Your task to perform on an android device: toggle javascript in the chrome app Image 0: 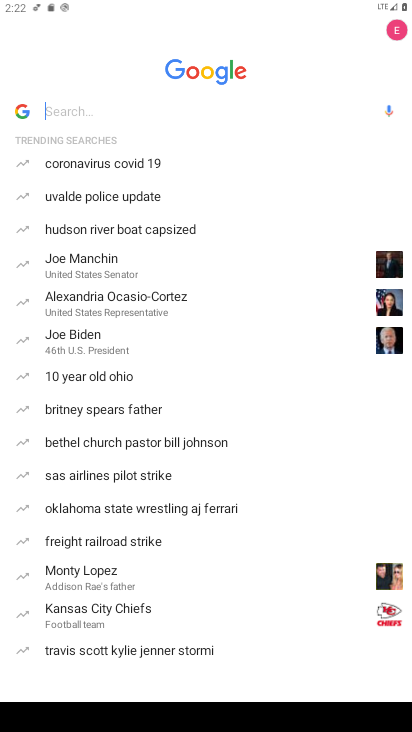
Step 0: press home button
Your task to perform on an android device: toggle javascript in the chrome app Image 1: 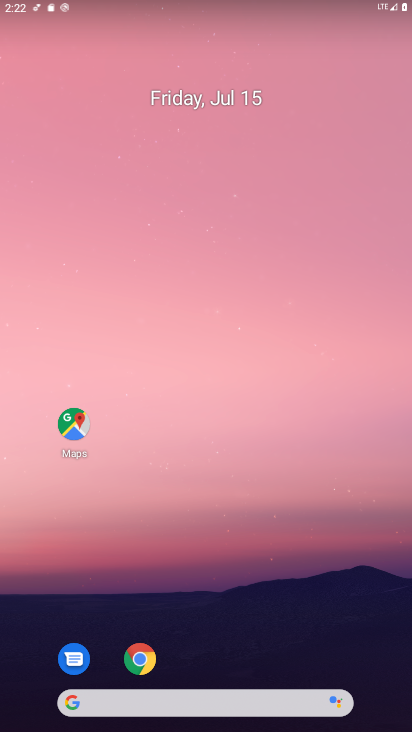
Step 1: drag from (201, 641) to (210, 120)
Your task to perform on an android device: toggle javascript in the chrome app Image 2: 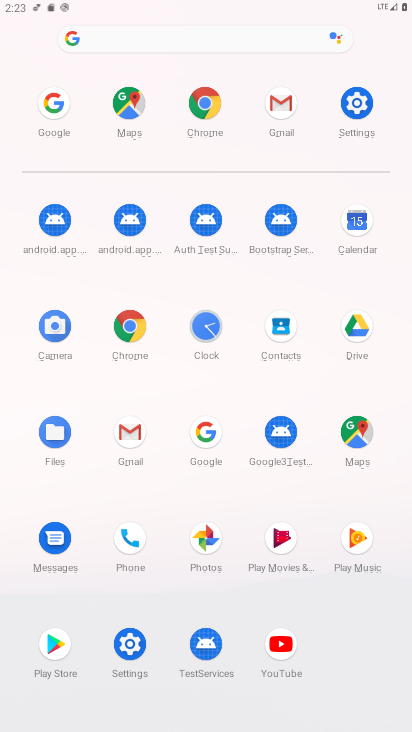
Step 2: click (210, 102)
Your task to perform on an android device: toggle javascript in the chrome app Image 3: 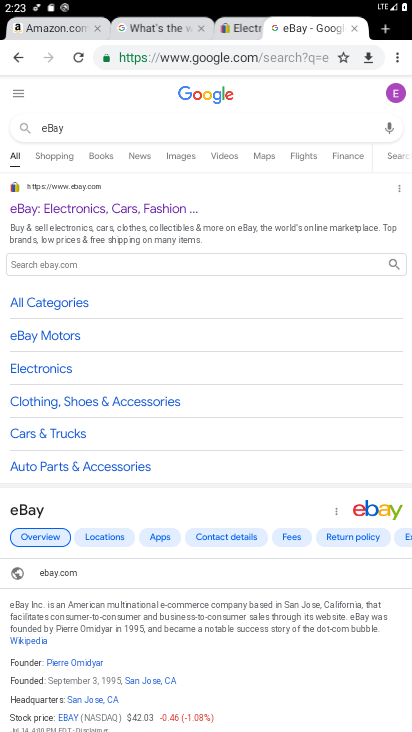
Step 3: click (399, 63)
Your task to perform on an android device: toggle javascript in the chrome app Image 4: 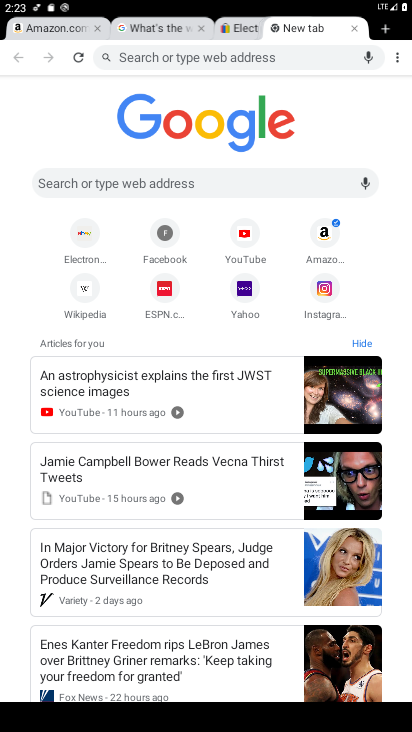
Step 4: click (399, 63)
Your task to perform on an android device: toggle javascript in the chrome app Image 5: 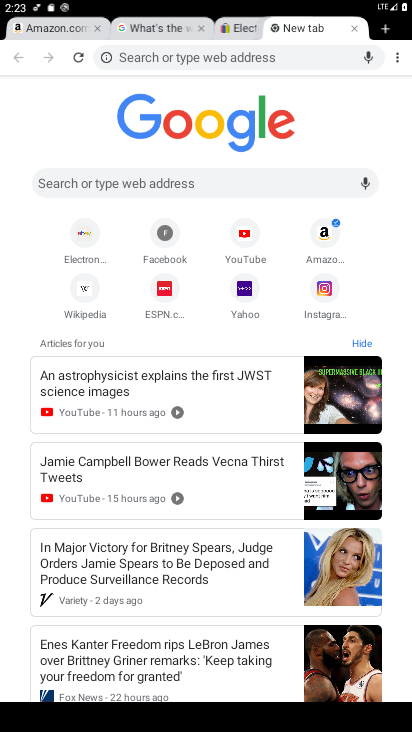
Step 5: click (391, 58)
Your task to perform on an android device: toggle javascript in the chrome app Image 6: 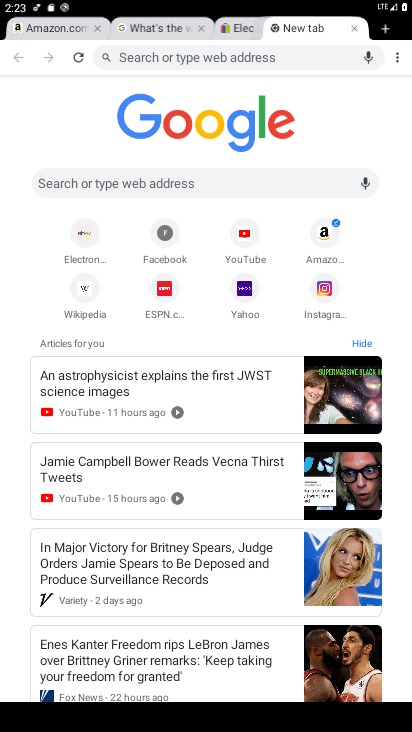
Step 6: click (391, 58)
Your task to perform on an android device: toggle javascript in the chrome app Image 7: 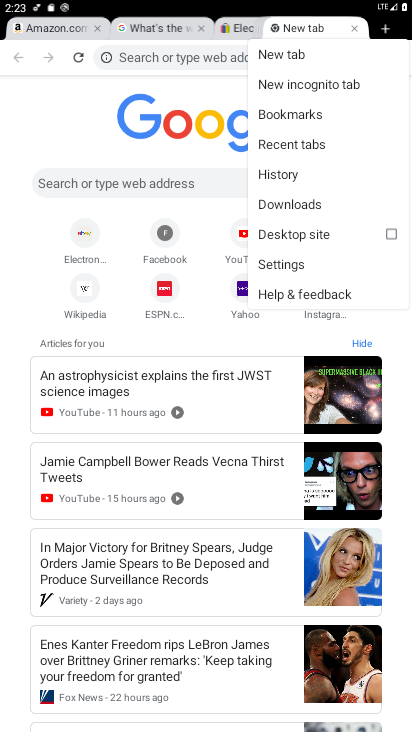
Step 7: click (288, 265)
Your task to perform on an android device: toggle javascript in the chrome app Image 8: 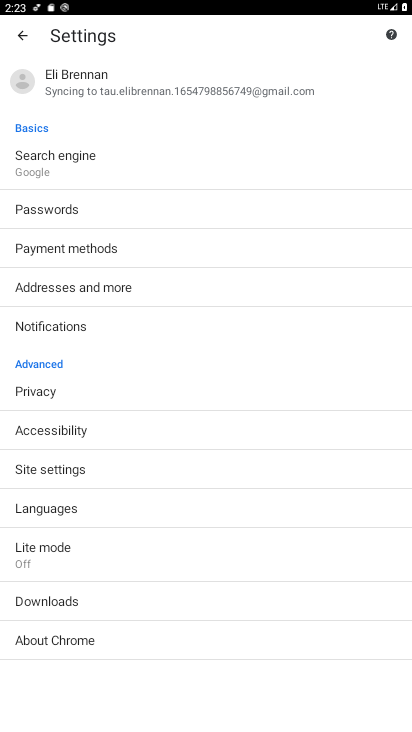
Step 8: click (81, 459)
Your task to perform on an android device: toggle javascript in the chrome app Image 9: 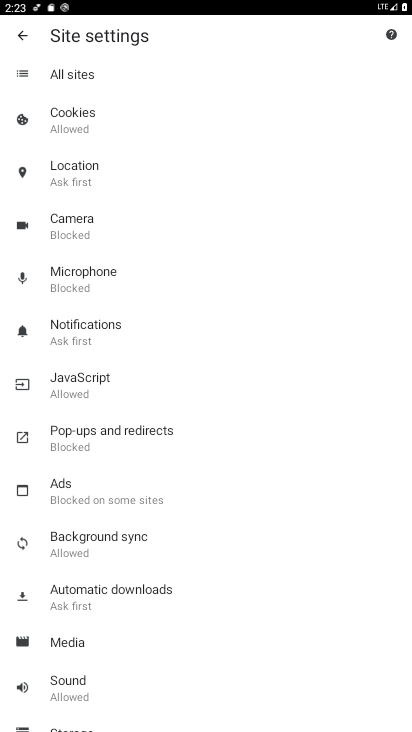
Step 9: click (98, 380)
Your task to perform on an android device: toggle javascript in the chrome app Image 10: 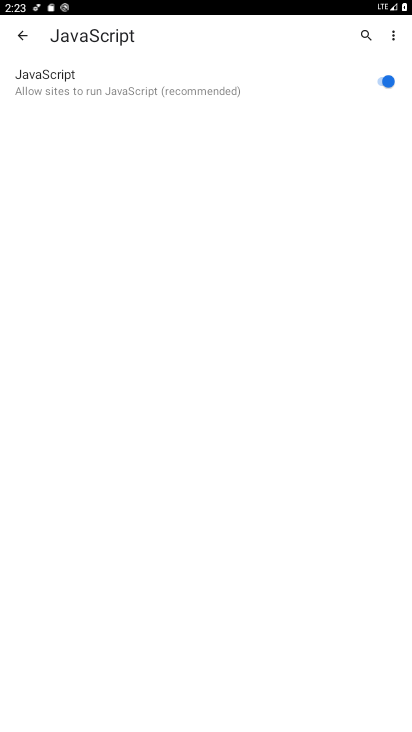
Step 10: click (385, 84)
Your task to perform on an android device: toggle javascript in the chrome app Image 11: 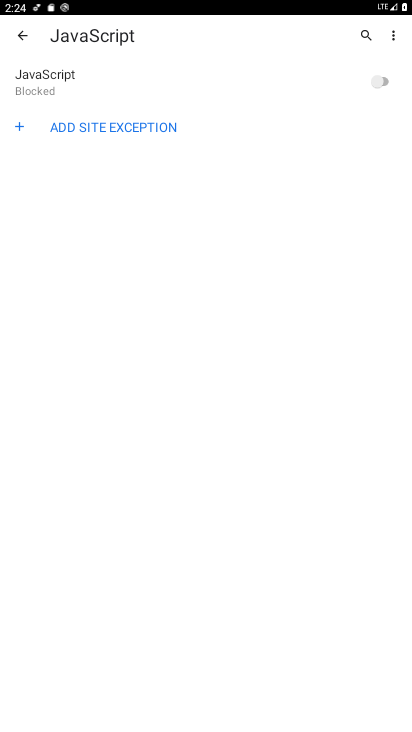
Step 11: task complete